Your task to perform on an android device: turn on notifications settings in the gmail app Image 0: 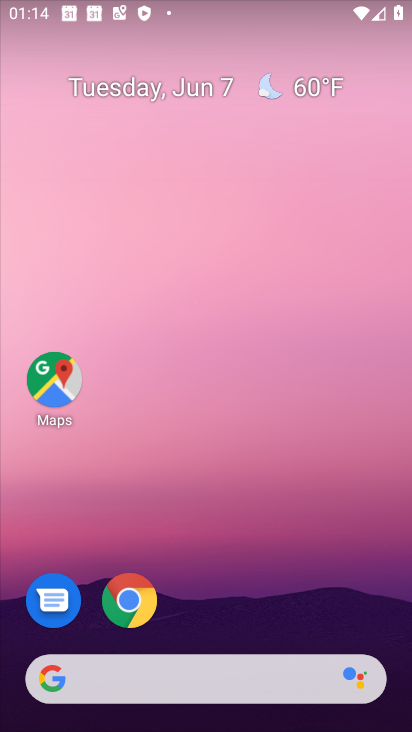
Step 0: drag from (224, 729) to (226, 55)
Your task to perform on an android device: turn on notifications settings in the gmail app Image 1: 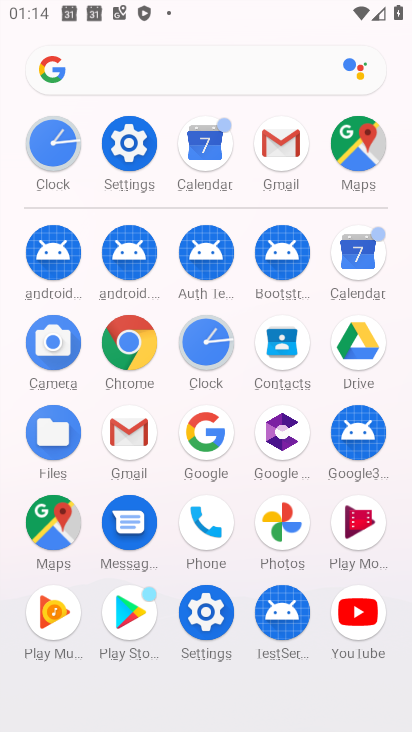
Step 1: click (122, 434)
Your task to perform on an android device: turn on notifications settings in the gmail app Image 2: 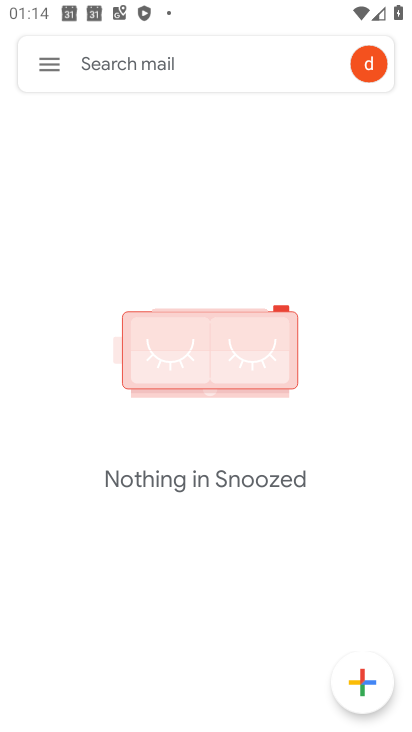
Step 2: click (46, 56)
Your task to perform on an android device: turn on notifications settings in the gmail app Image 3: 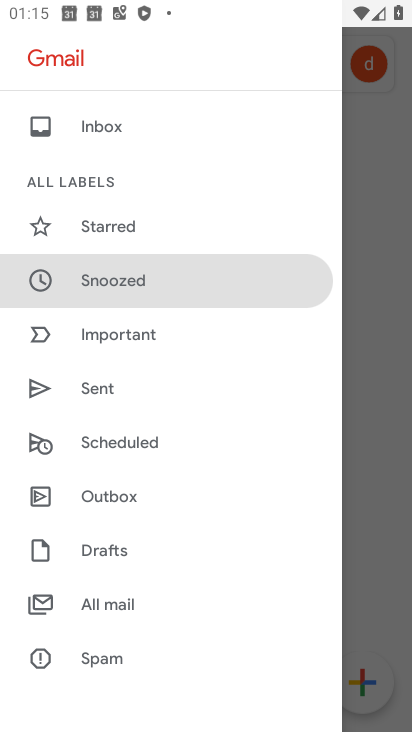
Step 3: drag from (114, 635) to (118, 335)
Your task to perform on an android device: turn on notifications settings in the gmail app Image 4: 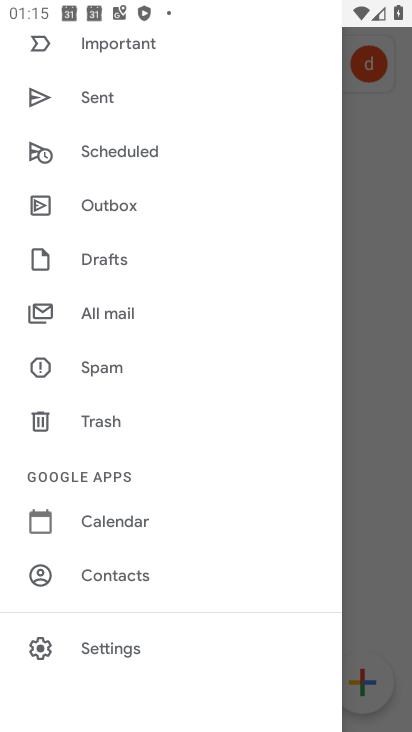
Step 4: click (98, 646)
Your task to perform on an android device: turn on notifications settings in the gmail app Image 5: 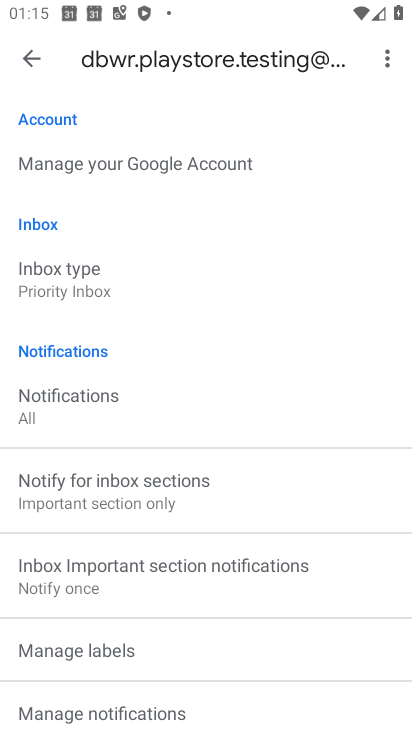
Step 5: task complete